Your task to perform on an android device: change keyboard looks Image 0: 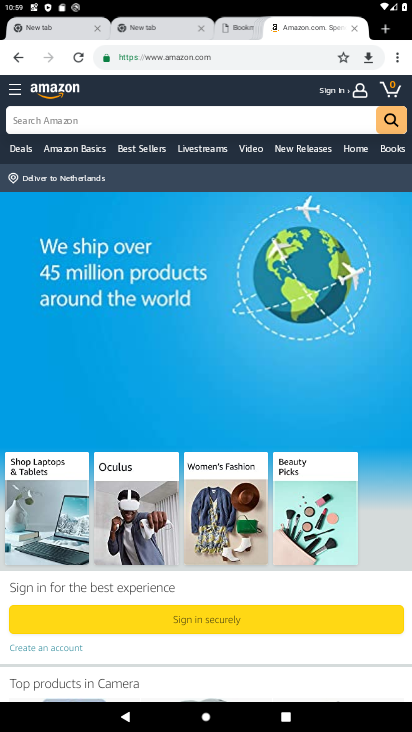
Step 0: press home button
Your task to perform on an android device: change keyboard looks Image 1: 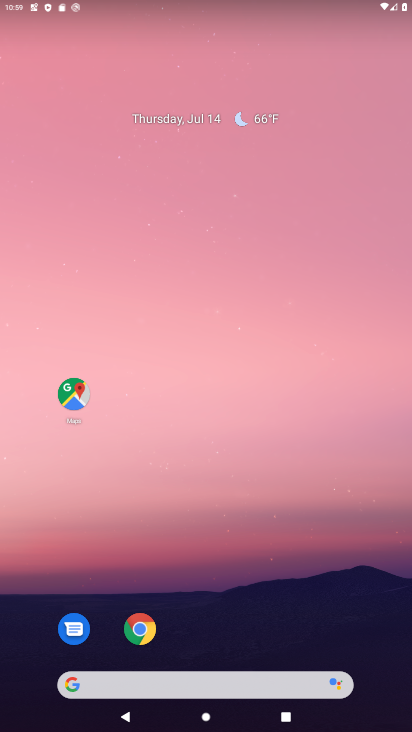
Step 1: drag from (273, 551) to (225, 119)
Your task to perform on an android device: change keyboard looks Image 2: 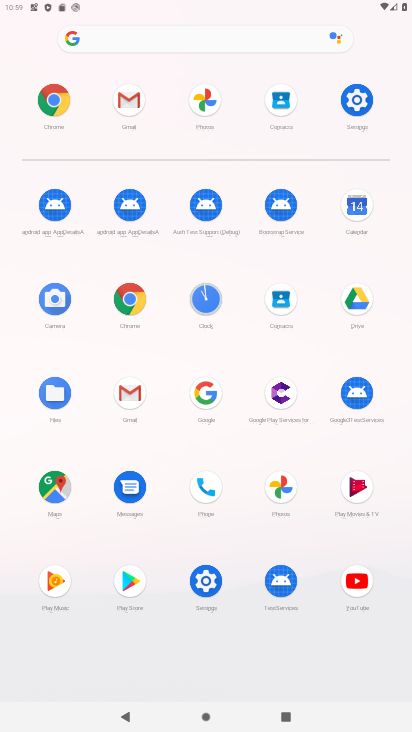
Step 2: click (353, 100)
Your task to perform on an android device: change keyboard looks Image 3: 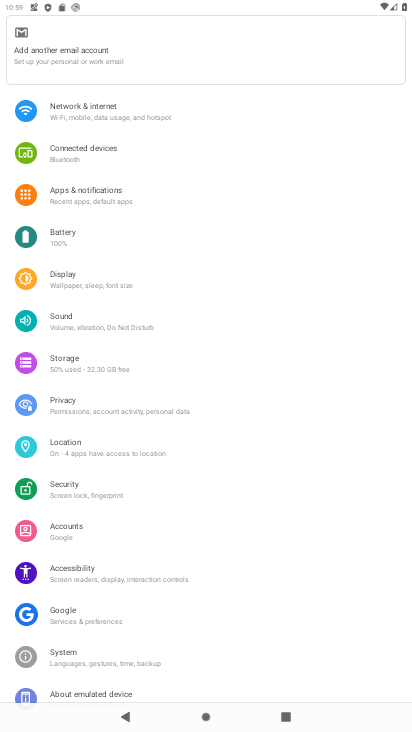
Step 3: click (84, 662)
Your task to perform on an android device: change keyboard looks Image 4: 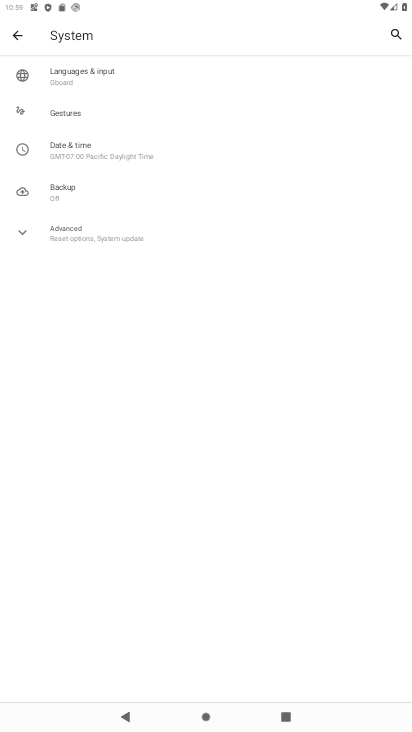
Step 4: click (82, 76)
Your task to perform on an android device: change keyboard looks Image 5: 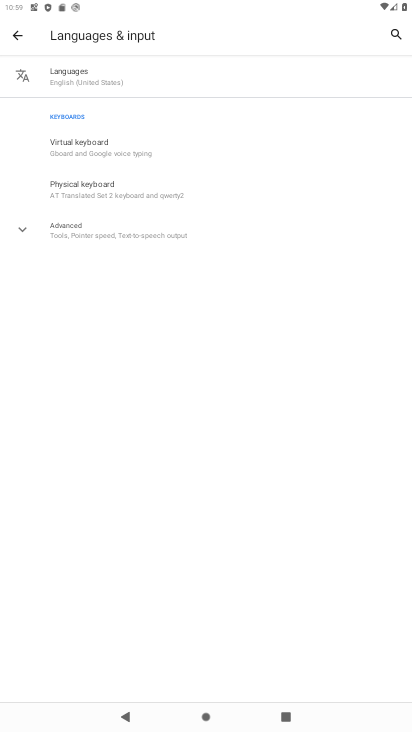
Step 5: click (84, 138)
Your task to perform on an android device: change keyboard looks Image 6: 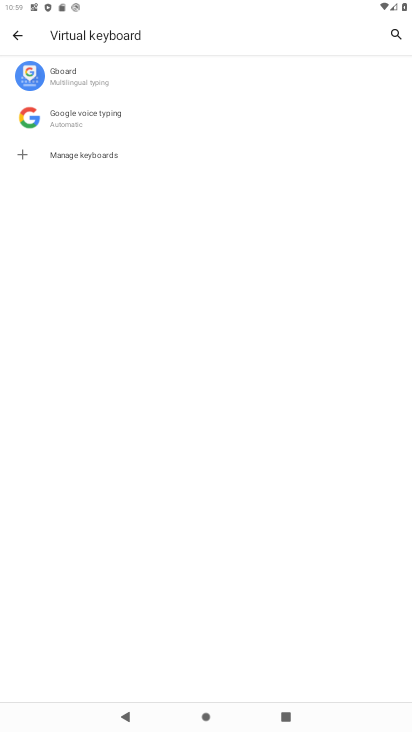
Step 6: click (64, 77)
Your task to perform on an android device: change keyboard looks Image 7: 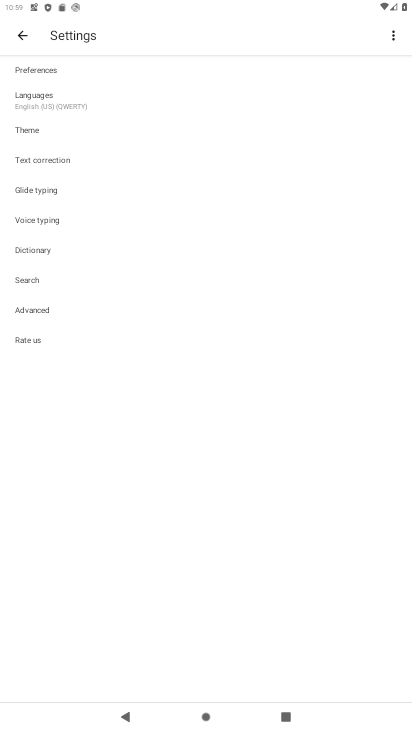
Step 7: click (27, 125)
Your task to perform on an android device: change keyboard looks Image 8: 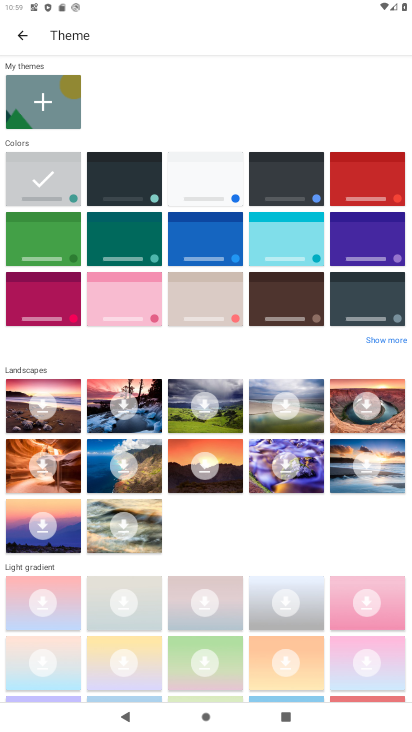
Step 8: click (286, 316)
Your task to perform on an android device: change keyboard looks Image 9: 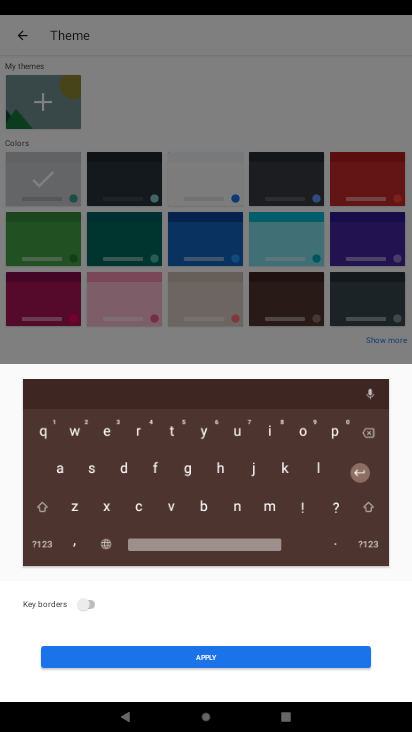
Step 9: click (212, 664)
Your task to perform on an android device: change keyboard looks Image 10: 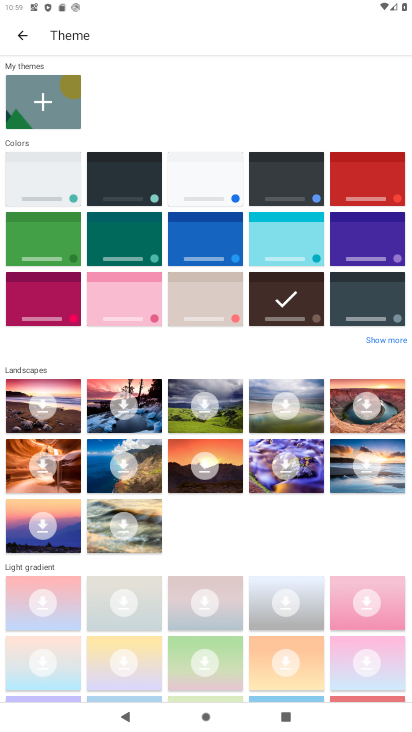
Step 10: task complete